Your task to perform on an android device: toggle javascript in the chrome app Image 0: 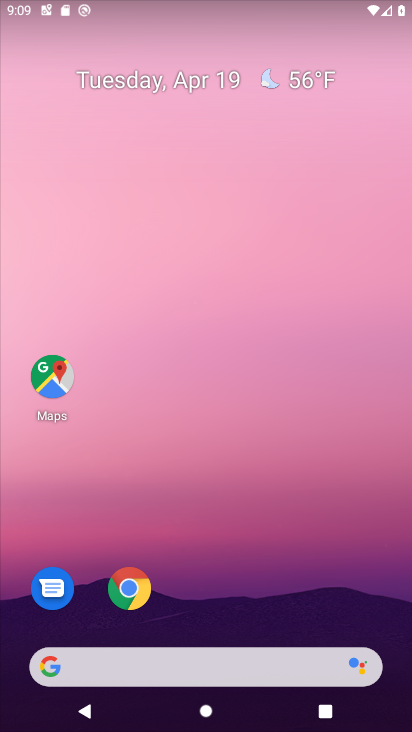
Step 0: drag from (236, 625) to (279, 36)
Your task to perform on an android device: toggle javascript in the chrome app Image 1: 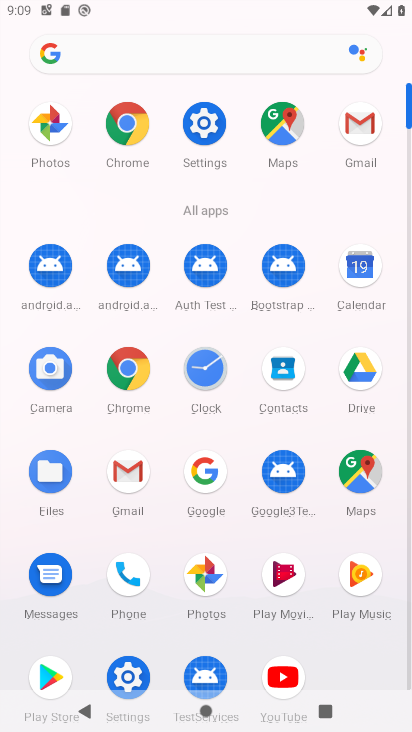
Step 1: click (122, 115)
Your task to perform on an android device: toggle javascript in the chrome app Image 2: 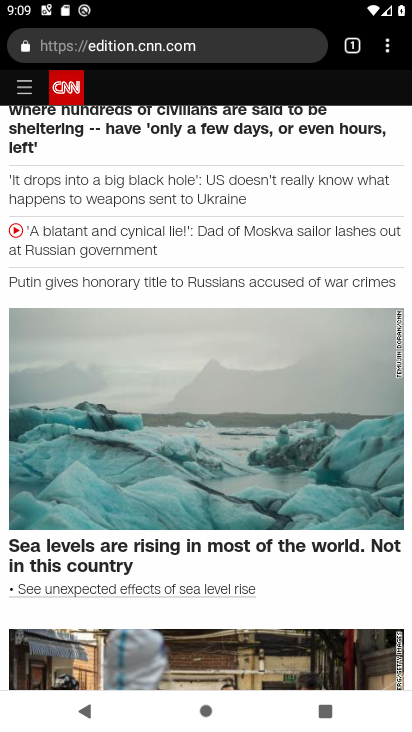
Step 2: click (387, 50)
Your task to perform on an android device: toggle javascript in the chrome app Image 3: 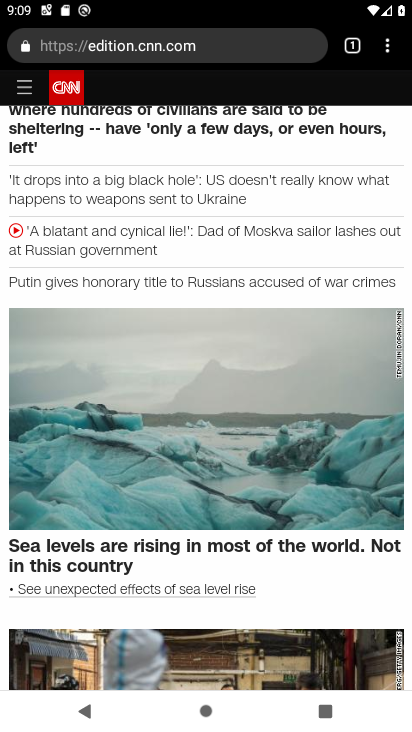
Step 3: click (384, 44)
Your task to perform on an android device: toggle javascript in the chrome app Image 4: 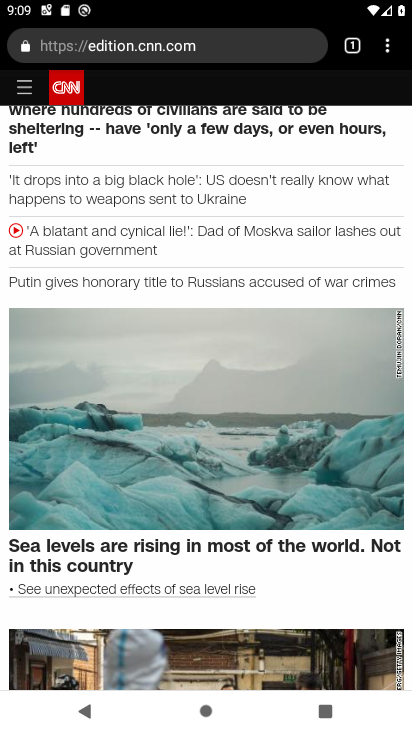
Step 4: click (385, 46)
Your task to perform on an android device: toggle javascript in the chrome app Image 5: 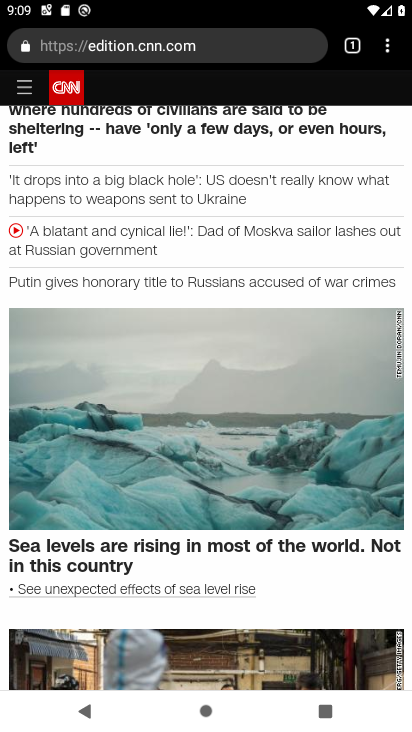
Step 5: click (387, 46)
Your task to perform on an android device: toggle javascript in the chrome app Image 6: 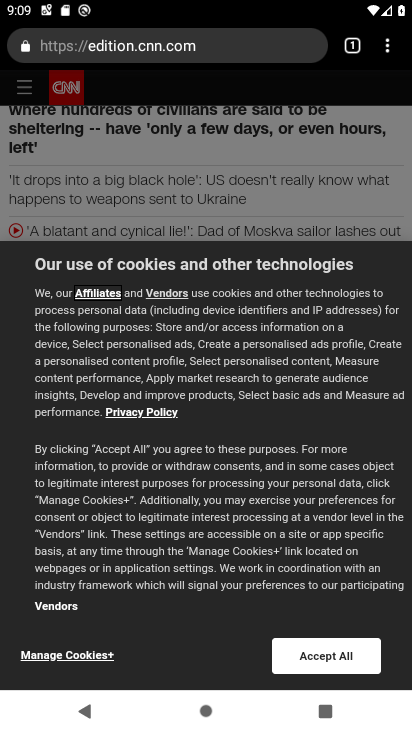
Step 6: click (328, 654)
Your task to perform on an android device: toggle javascript in the chrome app Image 7: 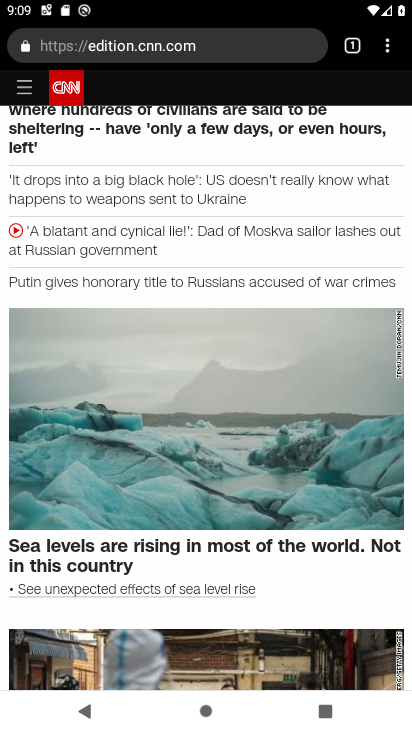
Step 7: click (392, 39)
Your task to perform on an android device: toggle javascript in the chrome app Image 8: 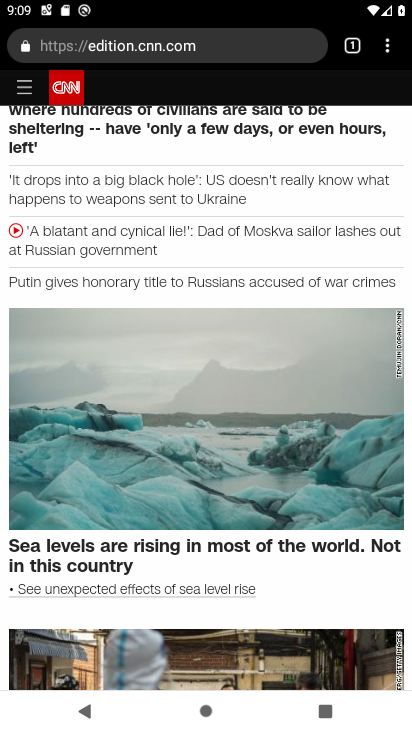
Step 8: click (386, 45)
Your task to perform on an android device: toggle javascript in the chrome app Image 9: 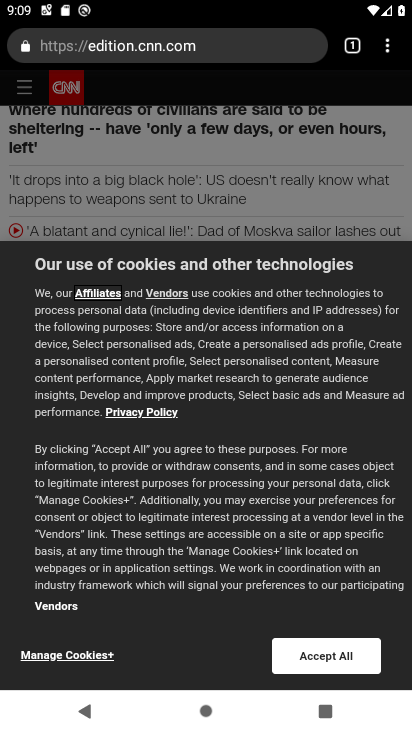
Step 9: click (353, 36)
Your task to perform on an android device: toggle javascript in the chrome app Image 10: 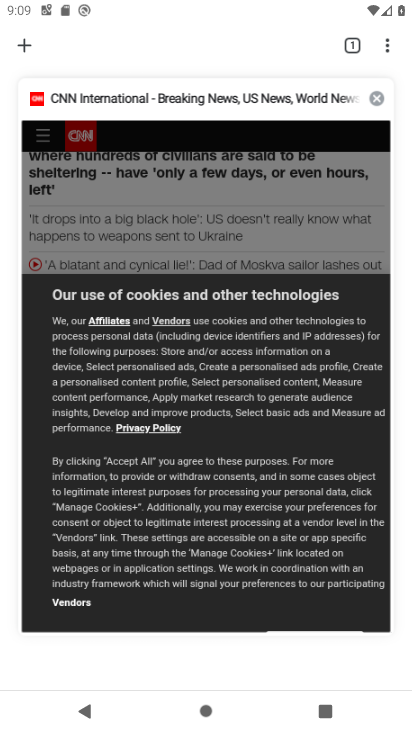
Step 10: click (20, 45)
Your task to perform on an android device: toggle javascript in the chrome app Image 11: 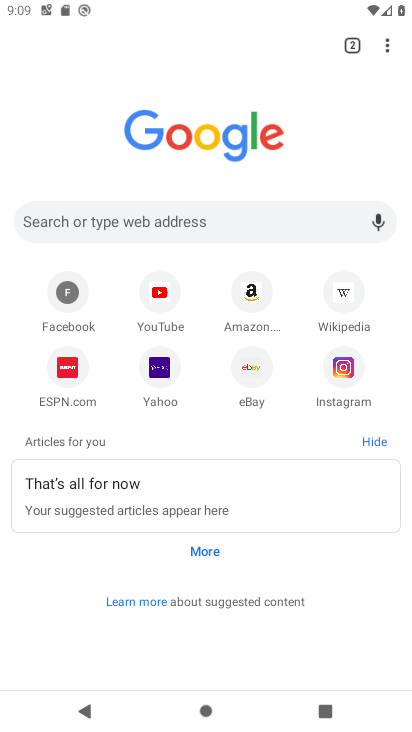
Step 11: click (386, 44)
Your task to perform on an android device: toggle javascript in the chrome app Image 12: 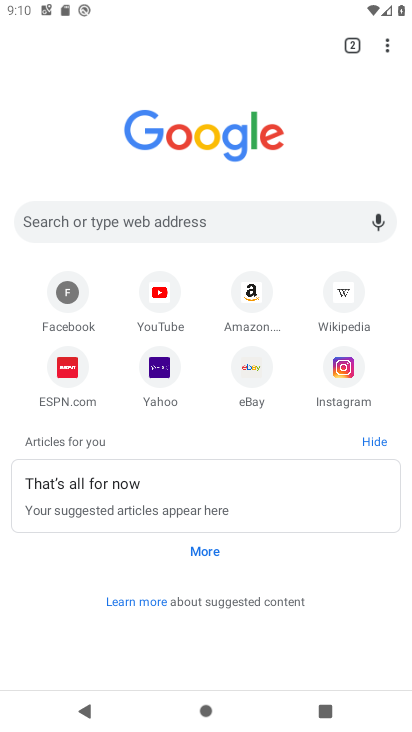
Step 12: click (386, 46)
Your task to perform on an android device: toggle javascript in the chrome app Image 13: 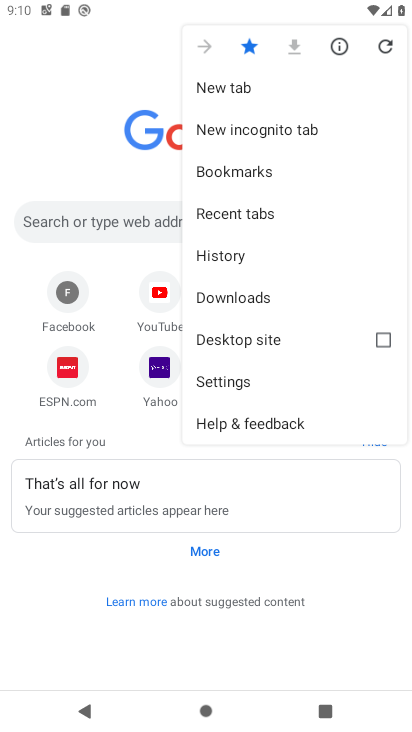
Step 13: click (260, 380)
Your task to perform on an android device: toggle javascript in the chrome app Image 14: 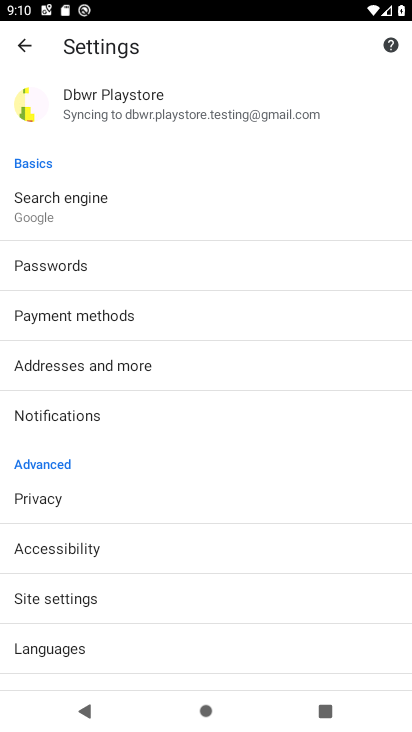
Step 14: click (117, 597)
Your task to perform on an android device: toggle javascript in the chrome app Image 15: 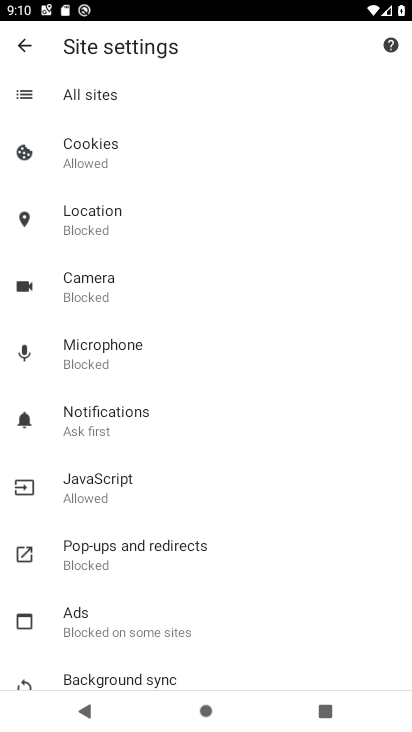
Step 15: click (124, 480)
Your task to perform on an android device: toggle javascript in the chrome app Image 16: 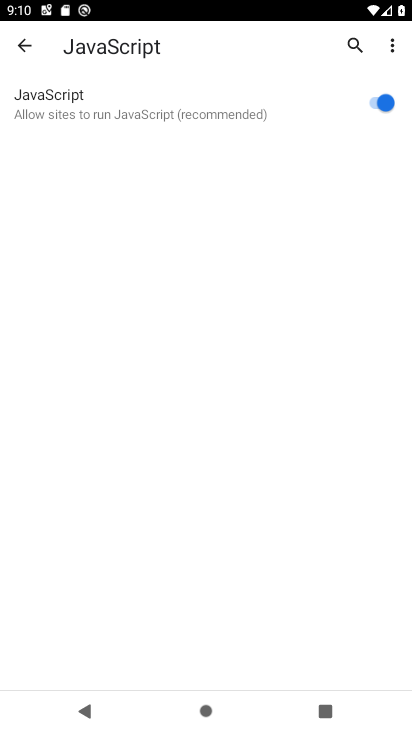
Step 16: click (379, 97)
Your task to perform on an android device: toggle javascript in the chrome app Image 17: 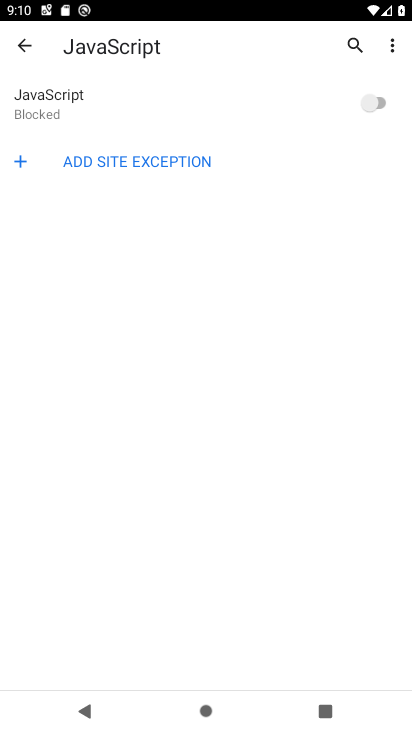
Step 17: task complete